Your task to perform on an android device: delete location history Image 0: 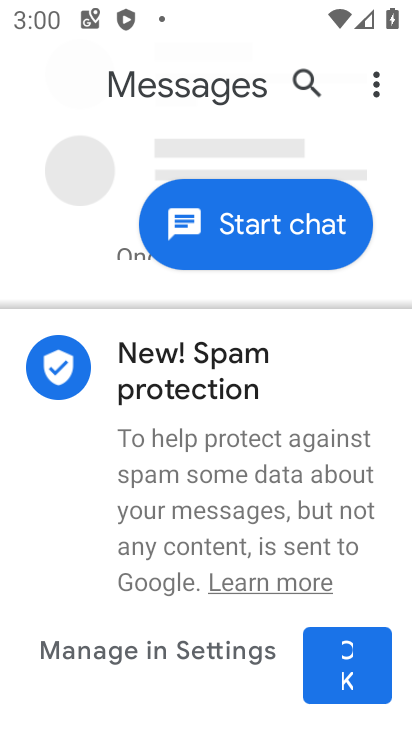
Step 0: press home button
Your task to perform on an android device: delete location history Image 1: 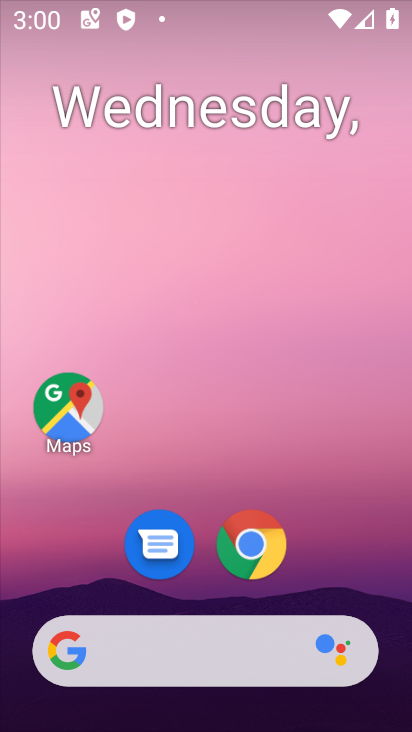
Step 1: drag from (356, 552) to (356, 291)
Your task to perform on an android device: delete location history Image 2: 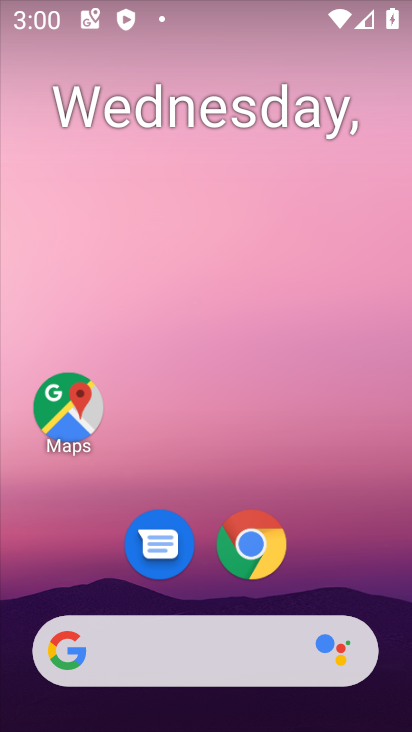
Step 2: drag from (341, 411) to (349, 192)
Your task to perform on an android device: delete location history Image 3: 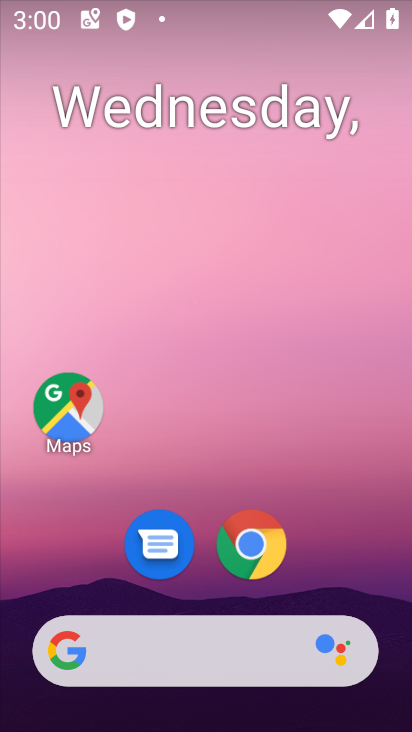
Step 3: drag from (351, 598) to (393, 138)
Your task to perform on an android device: delete location history Image 4: 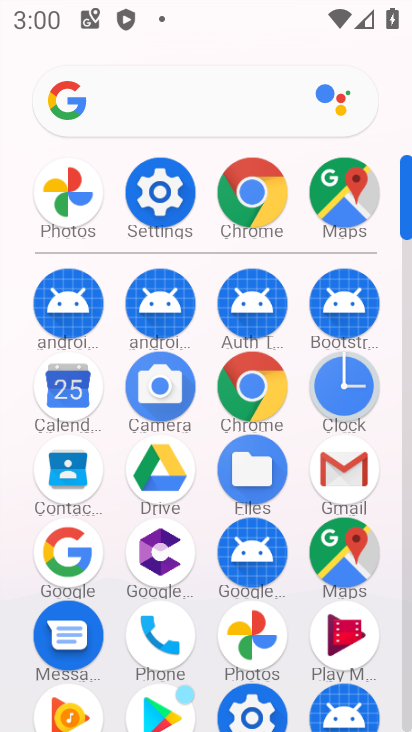
Step 4: drag from (273, 635) to (315, 343)
Your task to perform on an android device: delete location history Image 5: 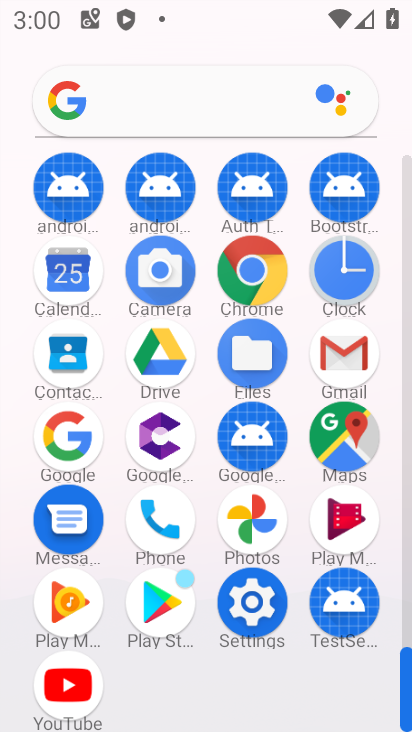
Step 5: click (257, 622)
Your task to perform on an android device: delete location history Image 6: 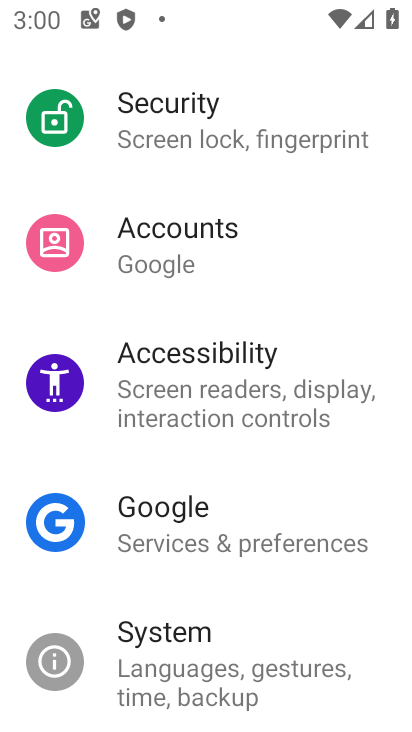
Step 6: drag from (293, 617) to (333, 321)
Your task to perform on an android device: delete location history Image 7: 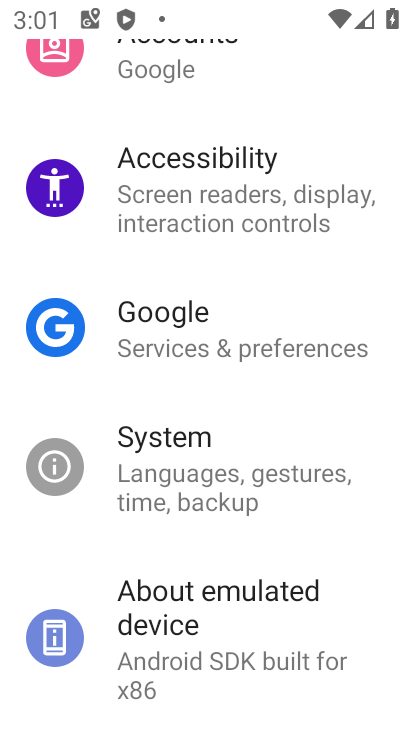
Step 7: drag from (298, 177) to (242, 582)
Your task to perform on an android device: delete location history Image 8: 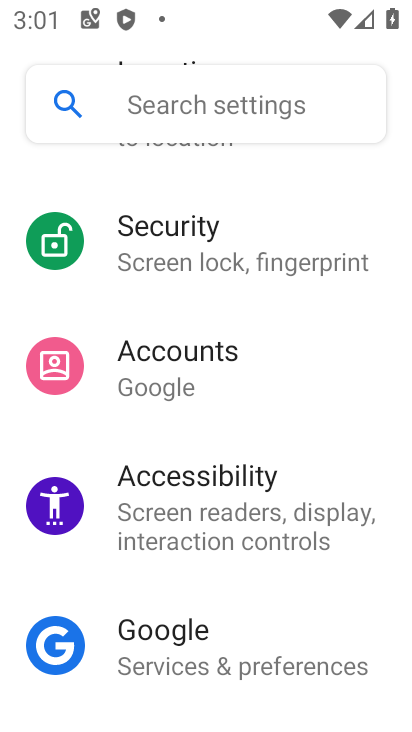
Step 8: drag from (260, 246) to (216, 569)
Your task to perform on an android device: delete location history Image 9: 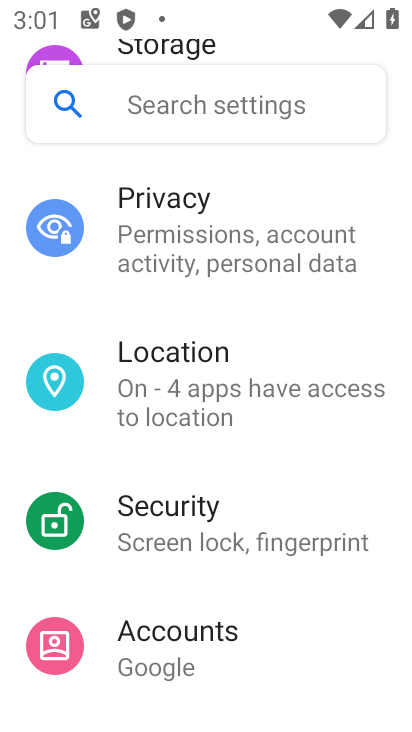
Step 9: click (229, 369)
Your task to perform on an android device: delete location history Image 10: 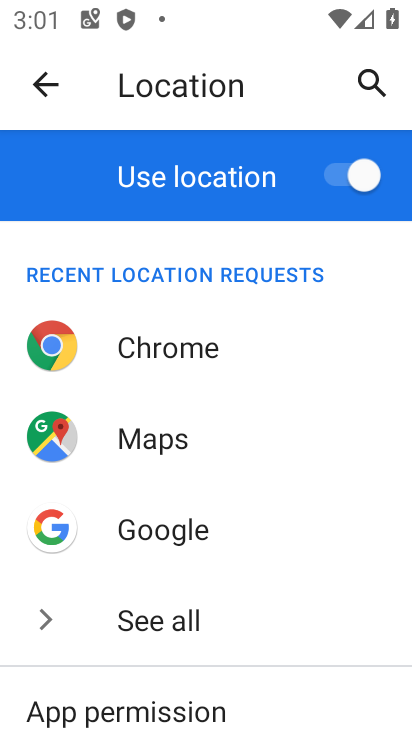
Step 10: drag from (247, 650) to (254, 341)
Your task to perform on an android device: delete location history Image 11: 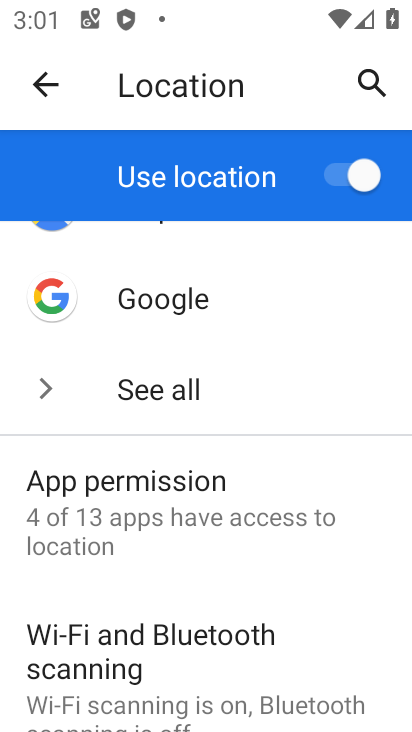
Step 11: drag from (250, 652) to (260, 369)
Your task to perform on an android device: delete location history Image 12: 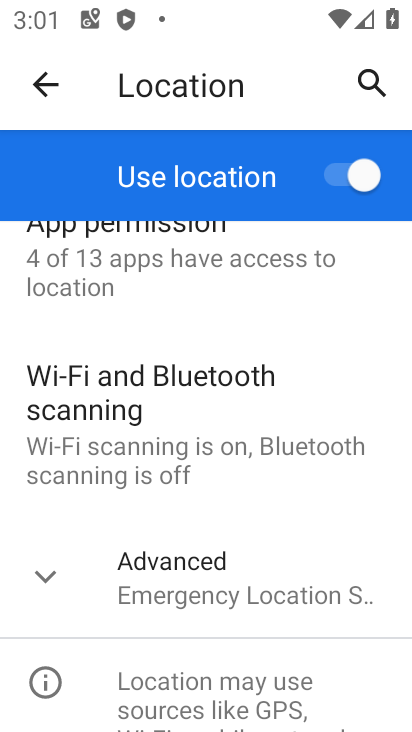
Step 12: click (292, 597)
Your task to perform on an android device: delete location history Image 13: 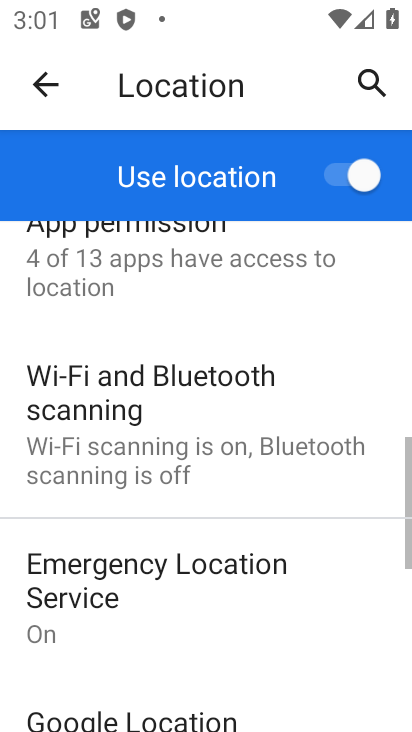
Step 13: drag from (295, 667) to (290, 310)
Your task to perform on an android device: delete location history Image 14: 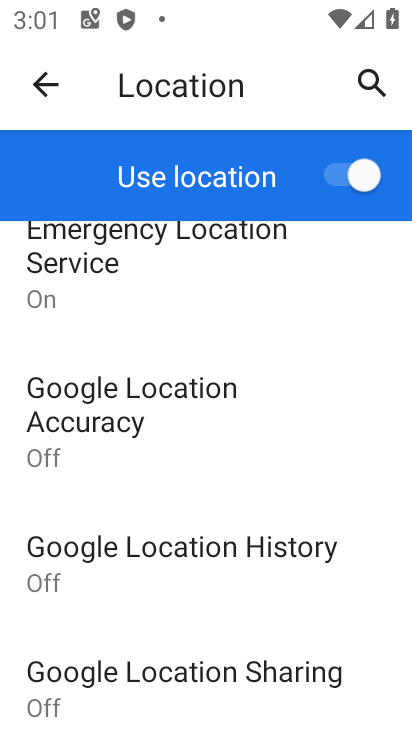
Step 14: click (184, 570)
Your task to perform on an android device: delete location history Image 15: 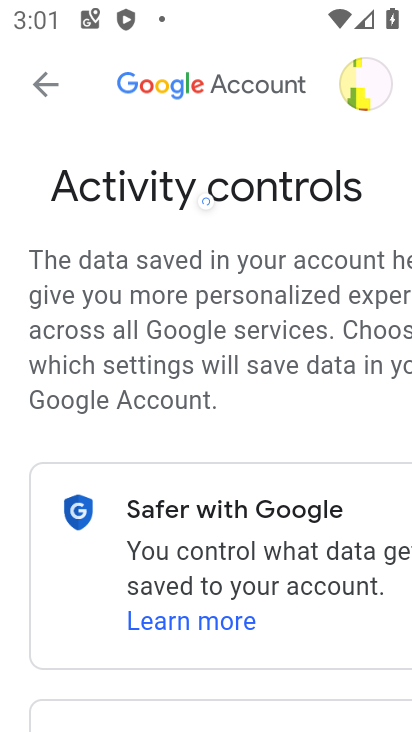
Step 15: drag from (242, 663) to (260, 359)
Your task to perform on an android device: delete location history Image 16: 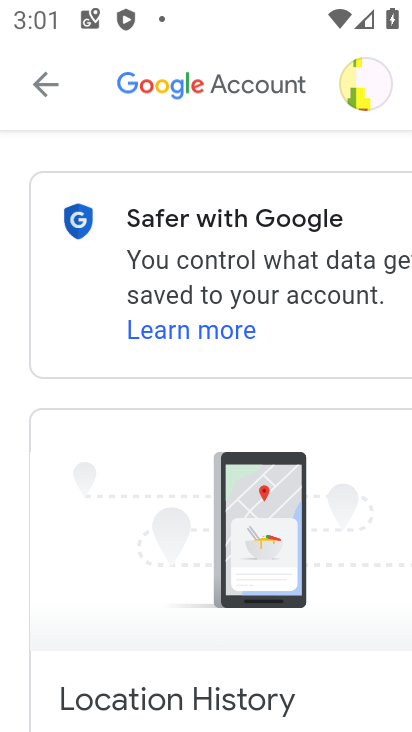
Step 16: drag from (290, 672) to (292, 261)
Your task to perform on an android device: delete location history Image 17: 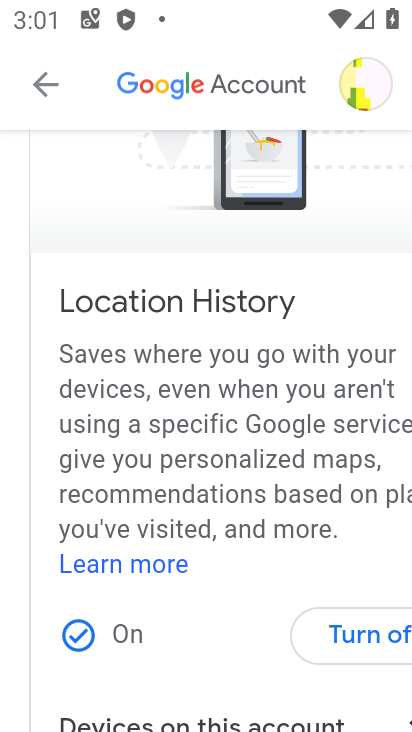
Step 17: drag from (226, 642) to (254, 205)
Your task to perform on an android device: delete location history Image 18: 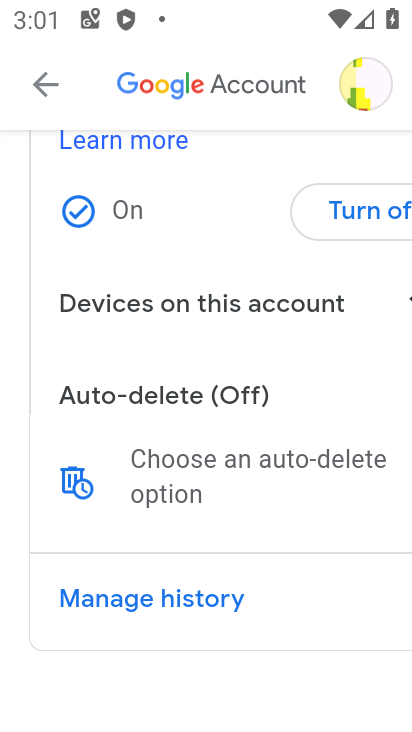
Step 18: click (187, 601)
Your task to perform on an android device: delete location history Image 19: 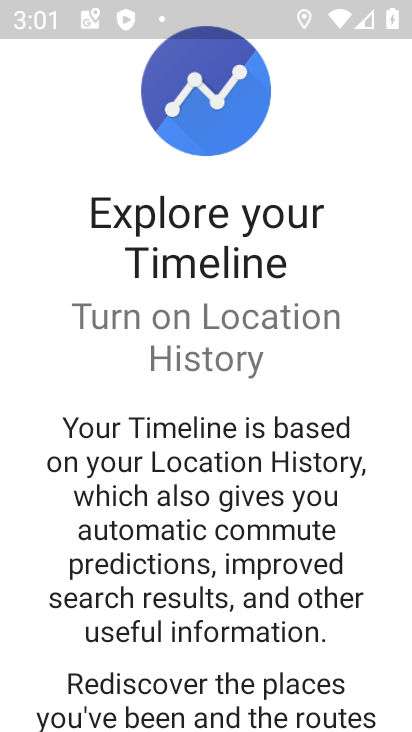
Step 19: drag from (273, 603) to (273, 180)
Your task to perform on an android device: delete location history Image 20: 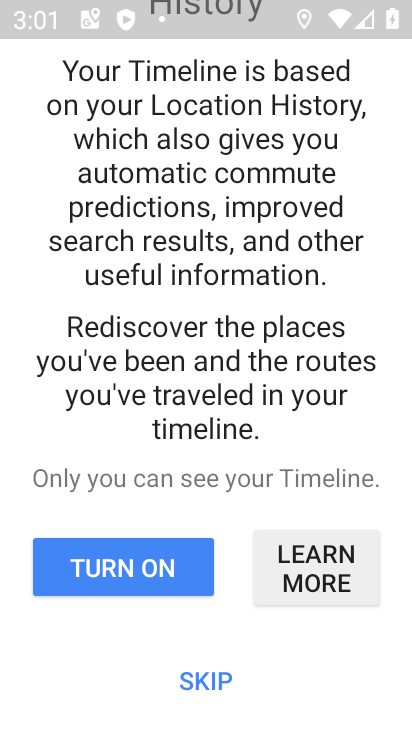
Step 20: click (224, 674)
Your task to perform on an android device: delete location history Image 21: 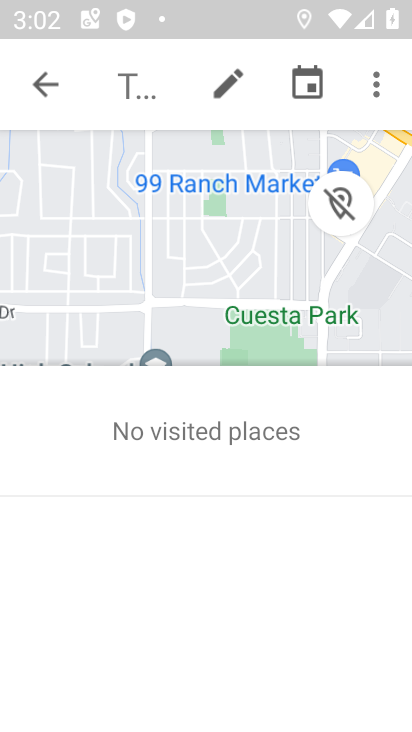
Step 21: click (382, 87)
Your task to perform on an android device: delete location history Image 22: 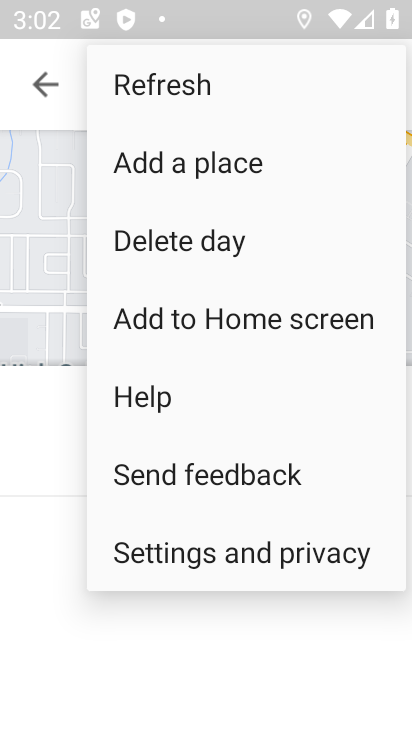
Step 22: click (180, 545)
Your task to perform on an android device: delete location history Image 23: 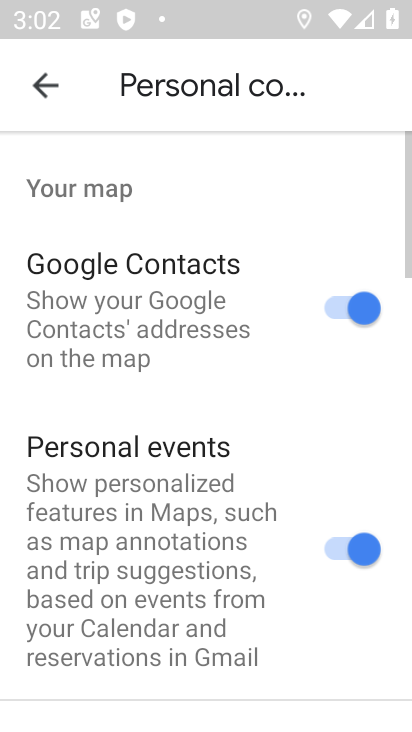
Step 23: drag from (179, 651) to (239, 238)
Your task to perform on an android device: delete location history Image 24: 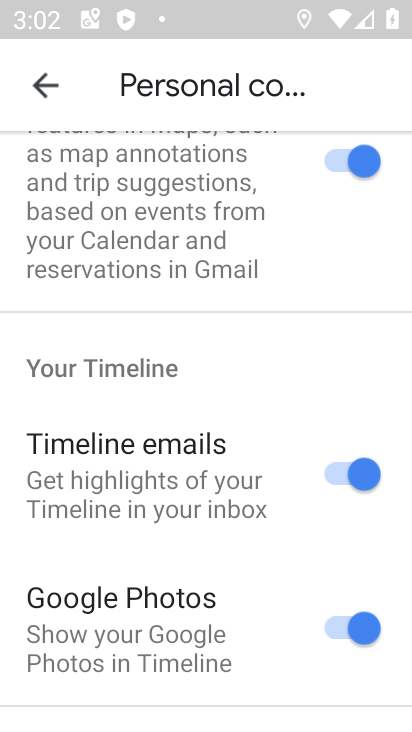
Step 24: drag from (217, 604) to (249, 159)
Your task to perform on an android device: delete location history Image 25: 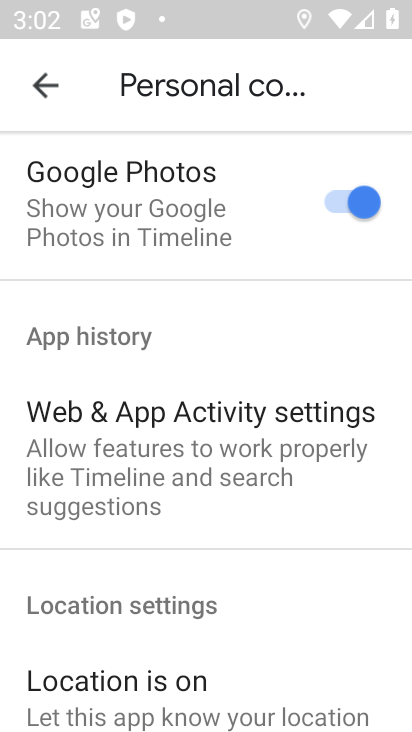
Step 25: drag from (209, 545) to (233, 145)
Your task to perform on an android device: delete location history Image 26: 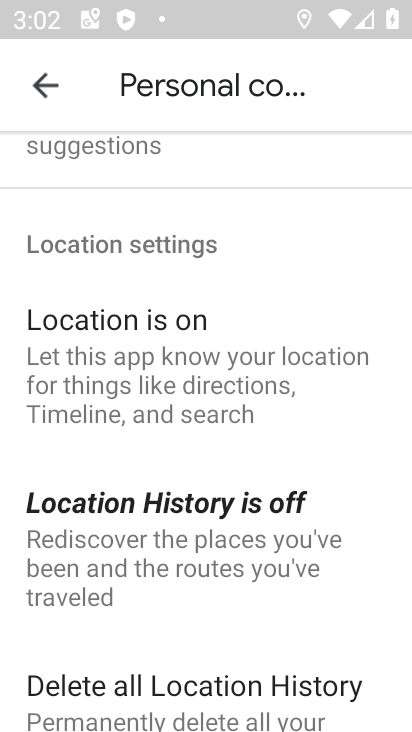
Step 26: drag from (204, 613) to (219, 241)
Your task to perform on an android device: delete location history Image 27: 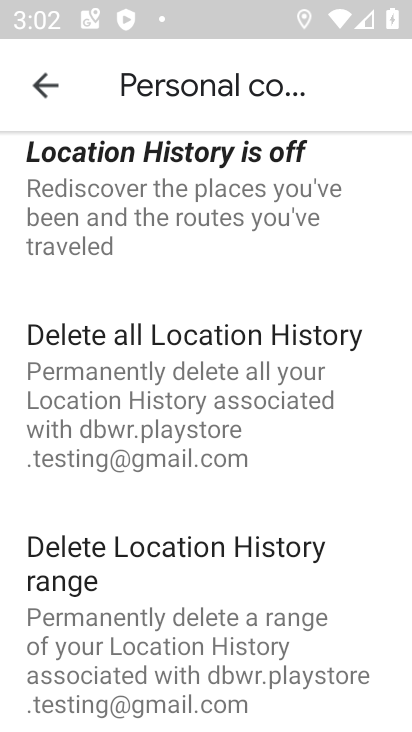
Step 27: click (233, 401)
Your task to perform on an android device: delete location history Image 28: 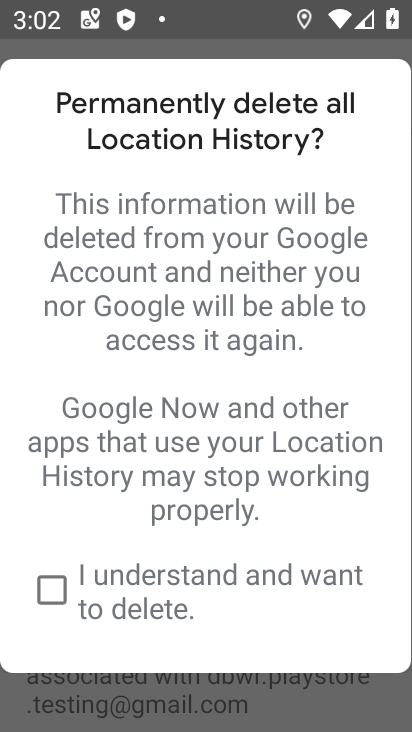
Step 28: click (57, 583)
Your task to perform on an android device: delete location history Image 29: 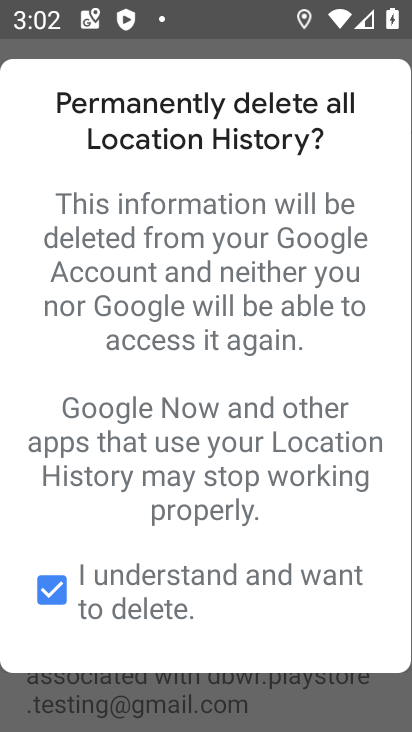
Step 29: task complete